Your task to perform on an android device: change the clock display to show seconds Image 0: 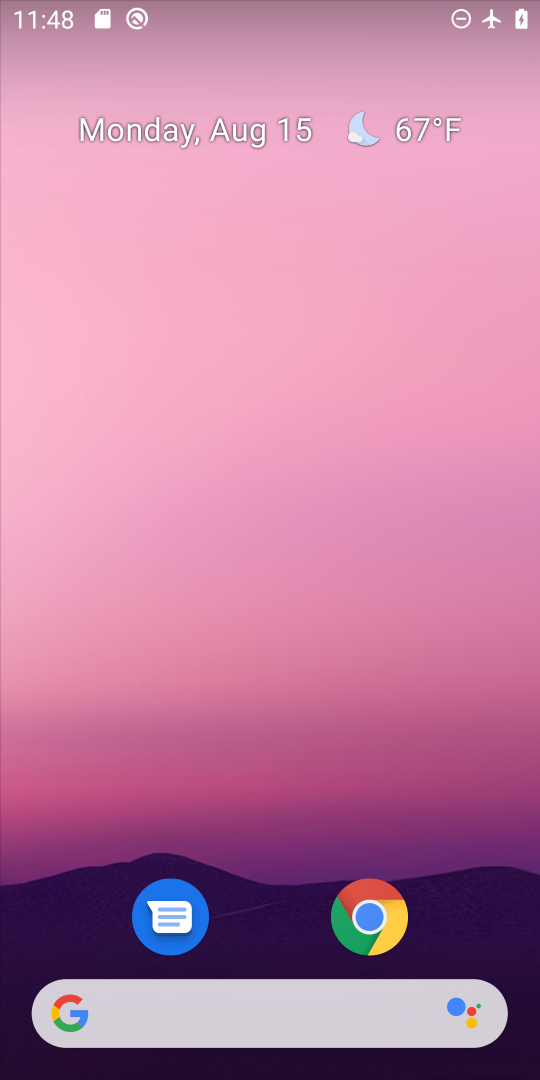
Step 0: drag from (298, 797) to (335, 1)
Your task to perform on an android device: change the clock display to show seconds Image 1: 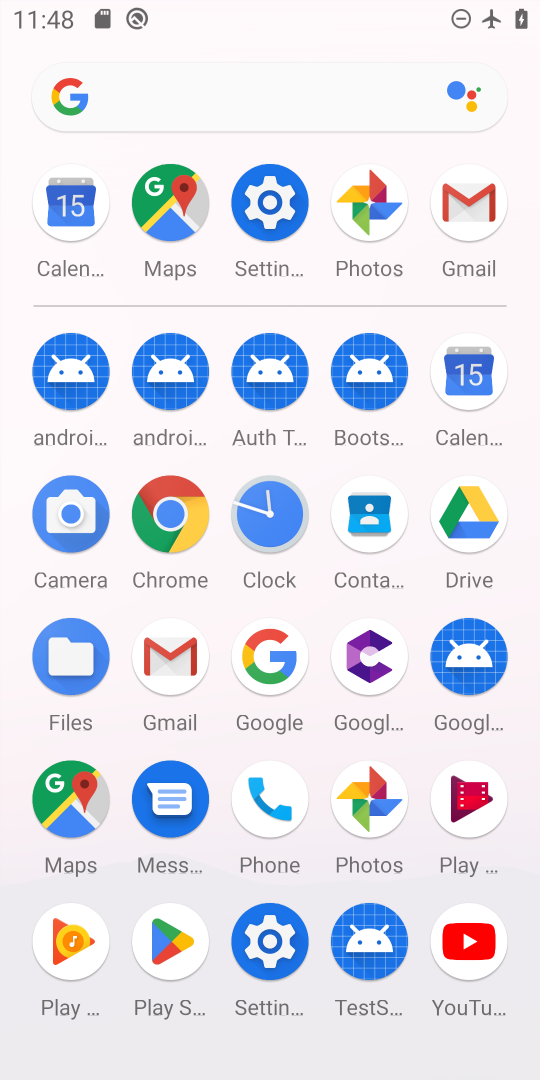
Step 1: click (279, 526)
Your task to perform on an android device: change the clock display to show seconds Image 2: 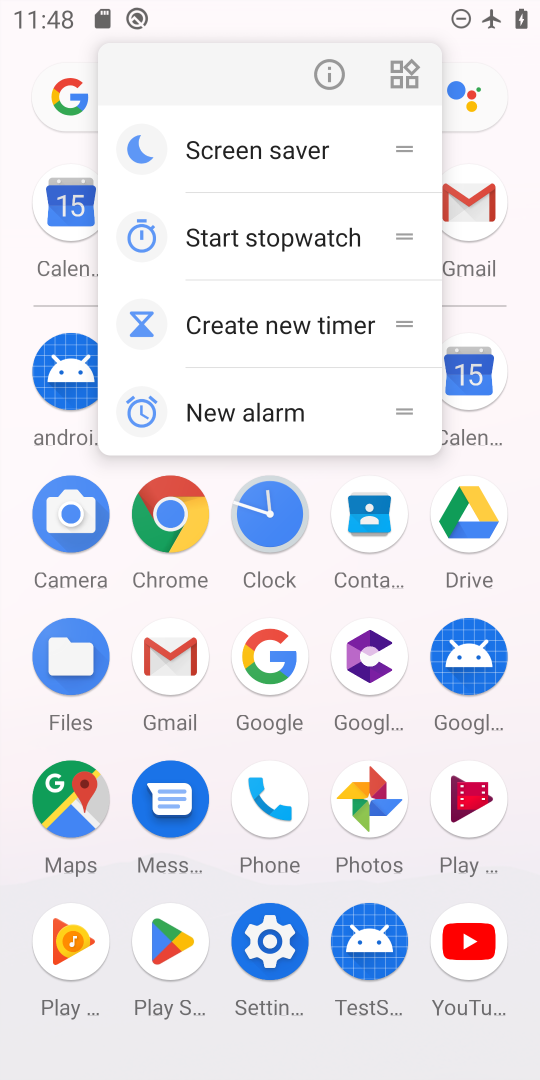
Step 2: click (279, 524)
Your task to perform on an android device: change the clock display to show seconds Image 3: 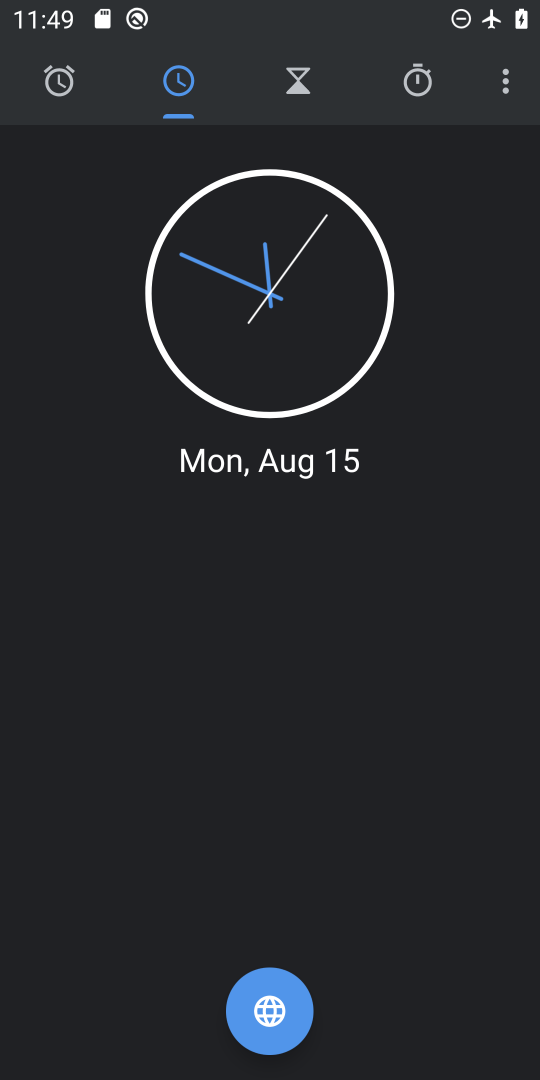
Step 3: task complete